Your task to perform on an android device: Go to privacy settings Image 0: 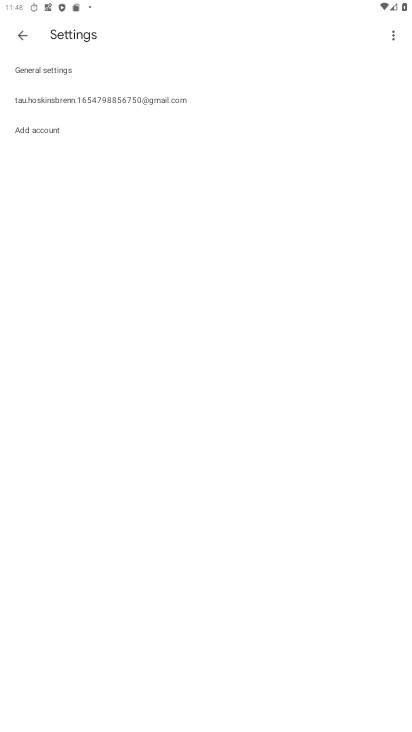
Step 0: press home button
Your task to perform on an android device: Go to privacy settings Image 1: 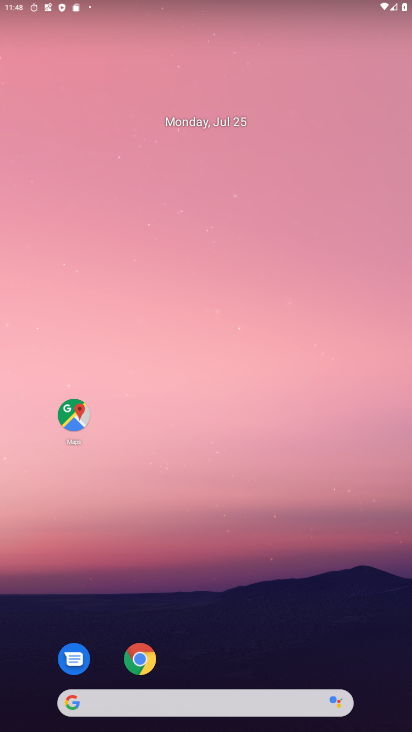
Step 1: drag from (195, 599) to (222, 207)
Your task to perform on an android device: Go to privacy settings Image 2: 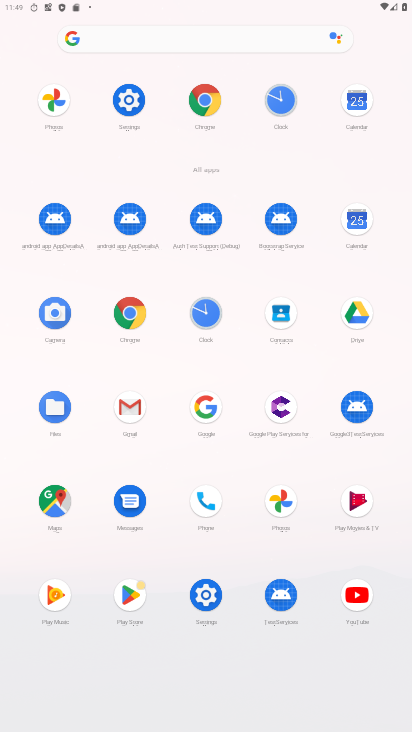
Step 2: click (124, 105)
Your task to perform on an android device: Go to privacy settings Image 3: 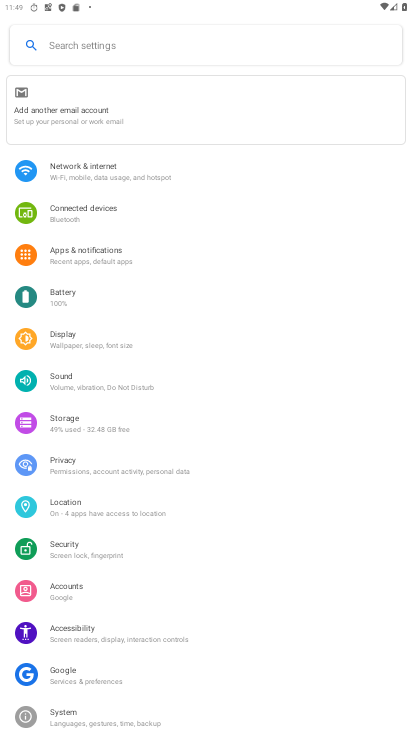
Step 3: click (69, 463)
Your task to perform on an android device: Go to privacy settings Image 4: 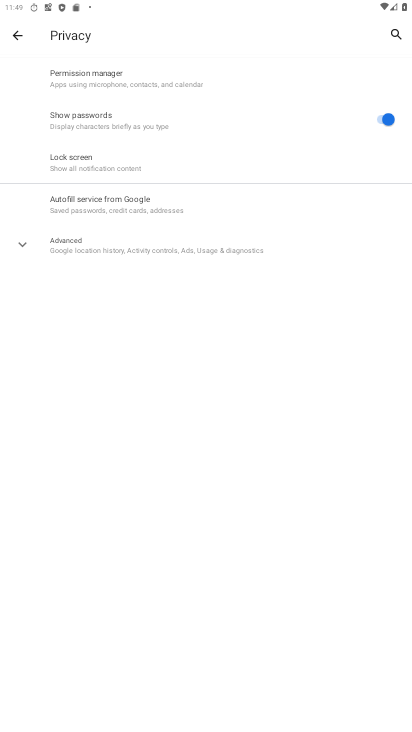
Step 4: task complete